Your task to perform on an android device: turn off priority inbox in the gmail app Image 0: 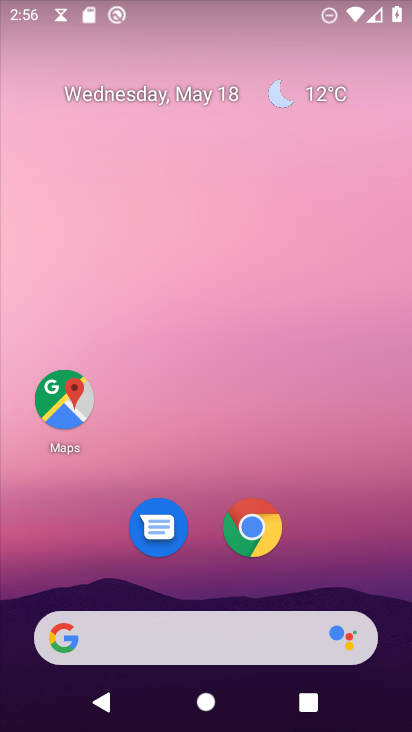
Step 0: drag from (322, 543) to (209, 17)
Your task to perform on an android device: turn off priority inbox in the gmail app Image 1: 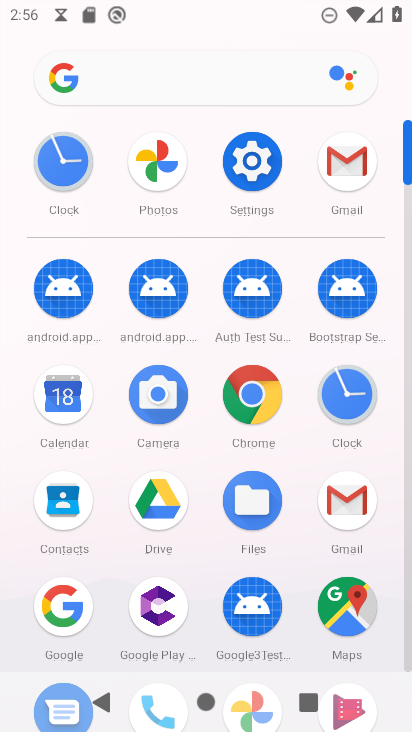
Step 1: click (338, 174)
Your task to perform on an android device: turn off priority inbox in the gmail app Image 2: 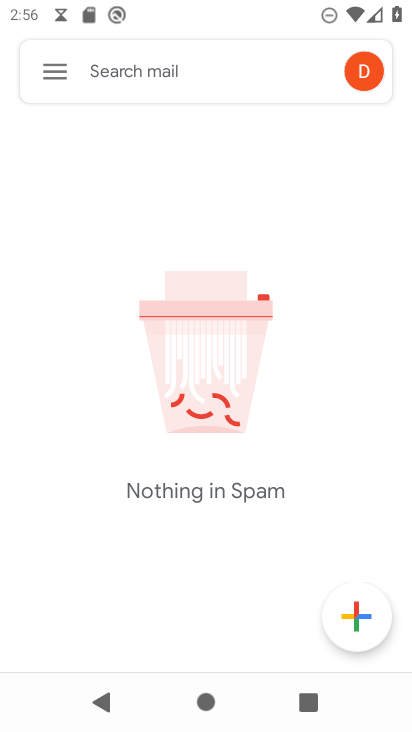
Step 2: click (50, 70)
Your task to perform on an android device: turn off priority inbox in the gmail app Image 3: 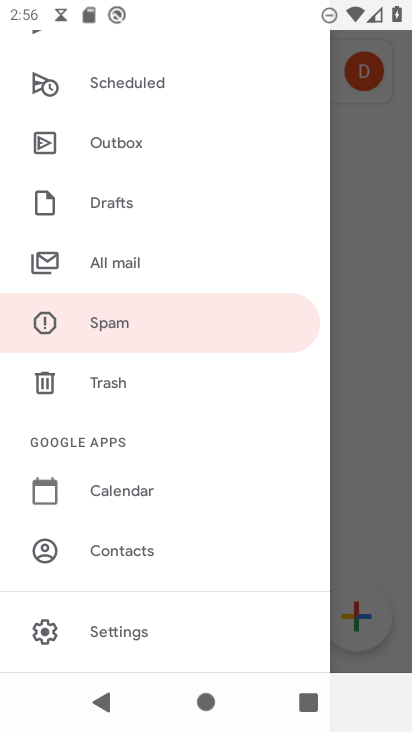
Step 3: click (176, 632)
Your task to perform on an android device: turn off priority inbox in the gmail app Image 4: 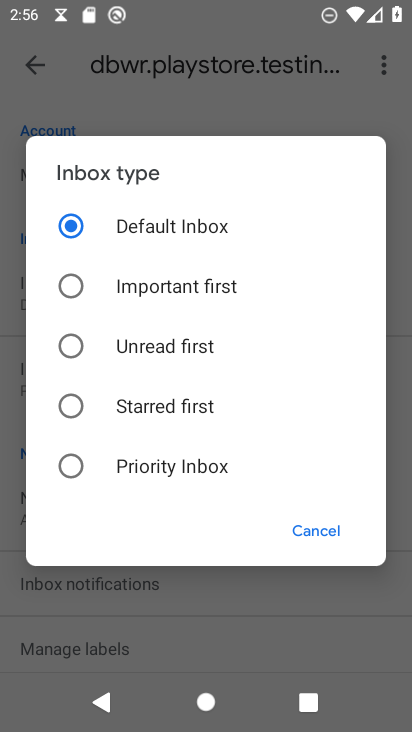
Step 4: task complete